Your task to perform on an android device: change the upload size in google photos Image 0: 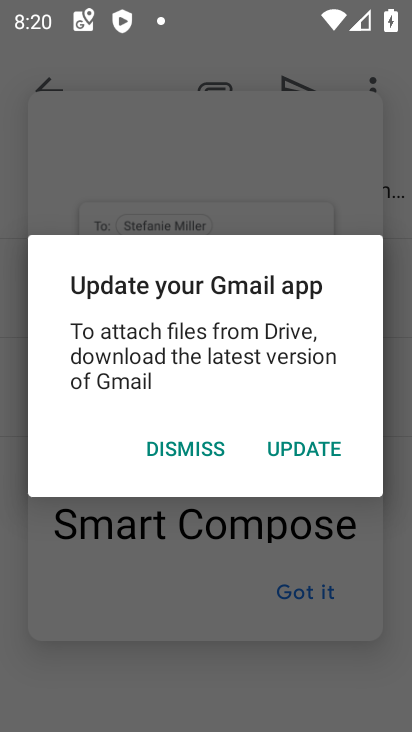
Step 0: press home button
Your task to perform on an android device: change the upload size in google photos Image 1: 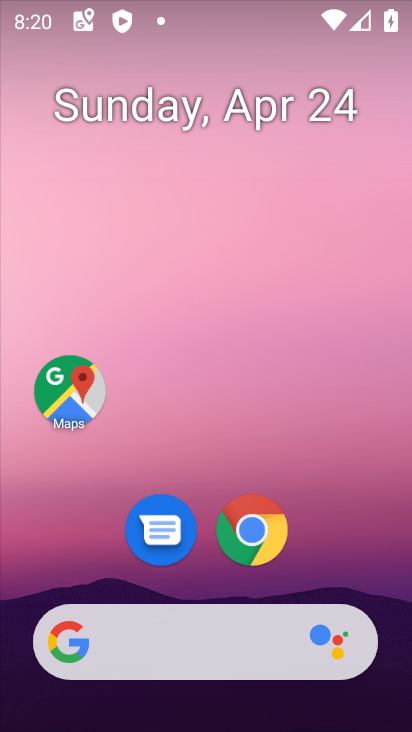
Step 1: drag from (211, 574) to (243, 32)
Your task to perform on an android device: change the upload size in google photos Image 2: 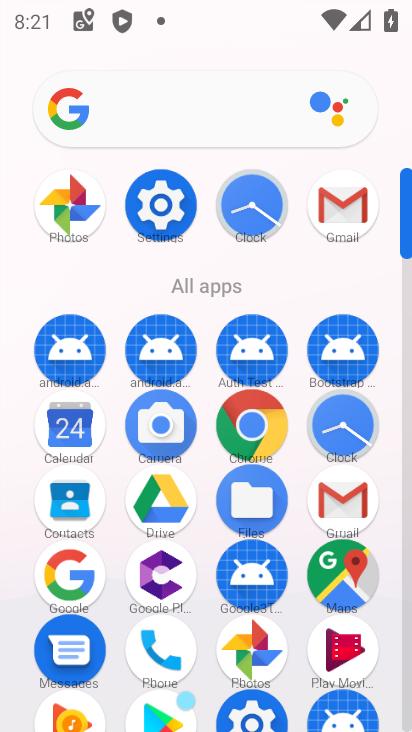
Step 2: click (88, 220)
Your task to perform on an android device: change the upload size in google photos Image 3: 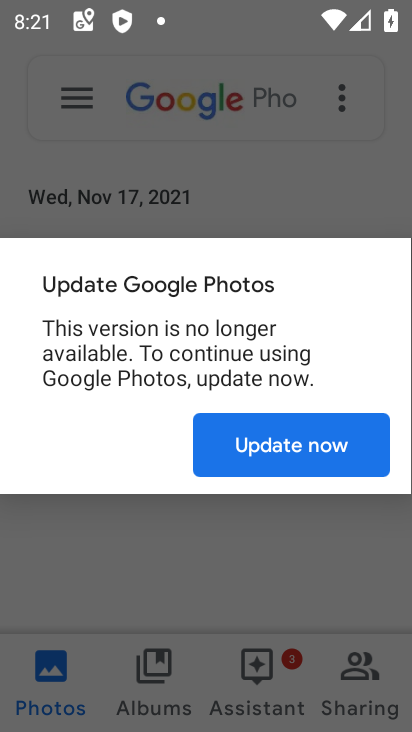
Step 3: click (316, 455)
Your task to perform on an android device: change the upload size in google photos Image 4: 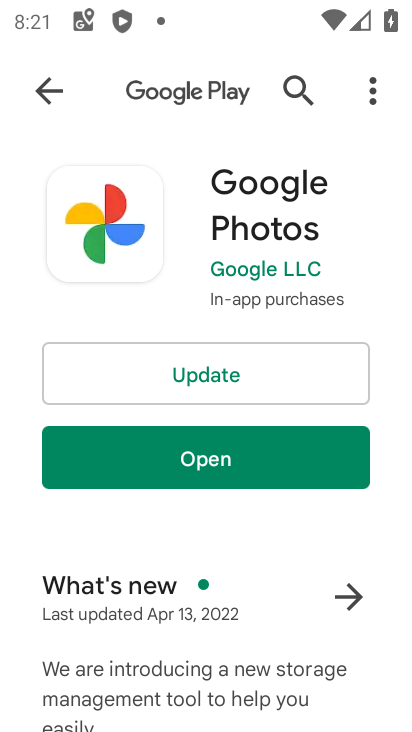
Step 4: click (245, 460)
Your task to perform on an android device: change the upload size in google photos Image 5: 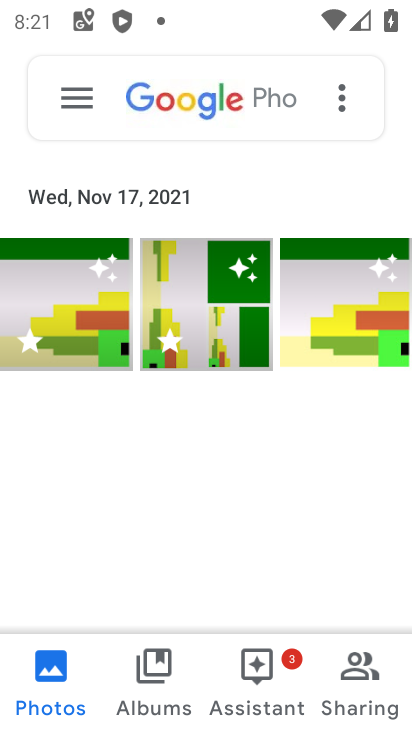
Step 5: click (67, 104)
Your task to perform on an android device: change the upload size in google photos Image 6: 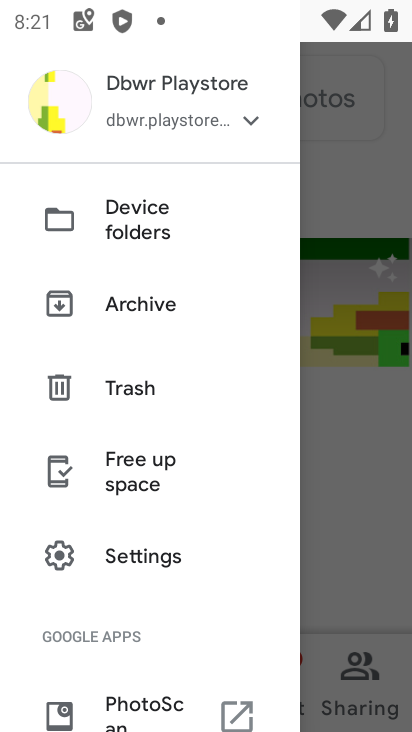
Step 6: click (153, 552)
Your task to perform on an android device: change the upload size in google photos Image 7: 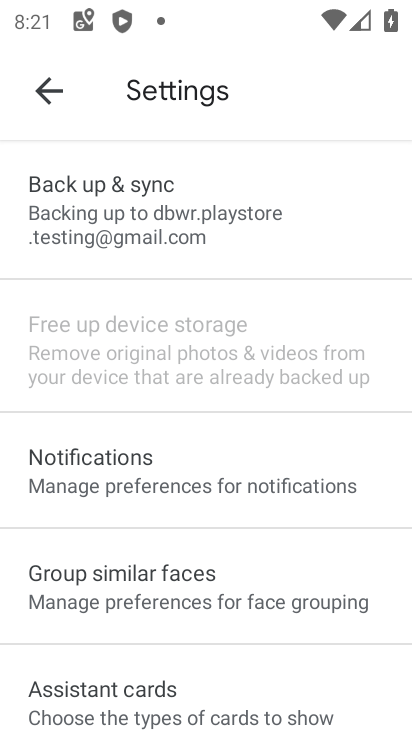
Step 7: click (146, 209)
Your task to perform on an android device: change the upload size in google photos Image 8: 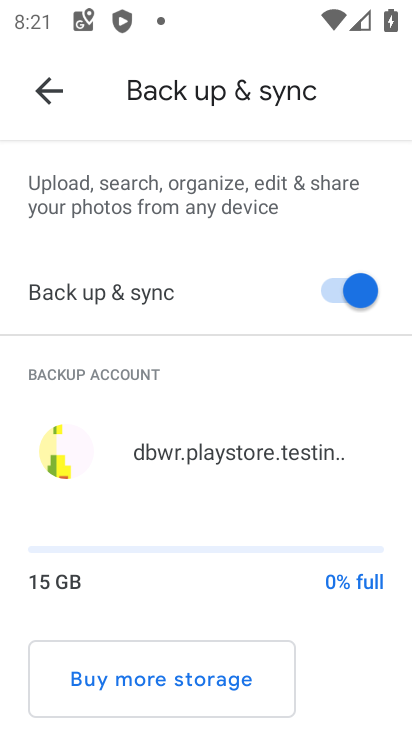
Step 8: drag from (156, 565) to (201, 214)
Your task to perform on an android device: change the upload size in google photos Image 9: 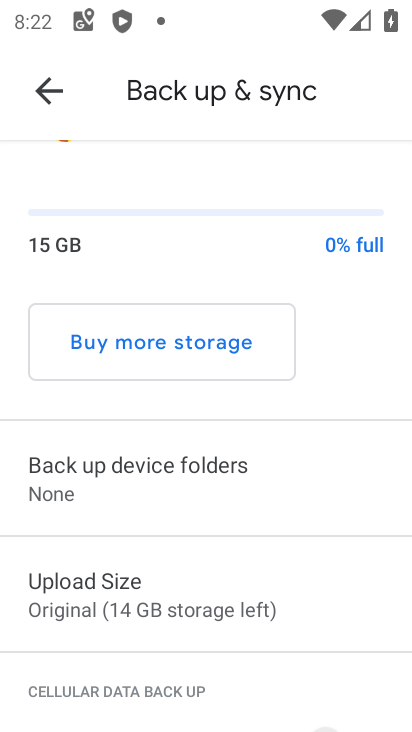
Step 9: click (112, 585)
Your task to perform on an android device: change the upload size in google photos Image 10: 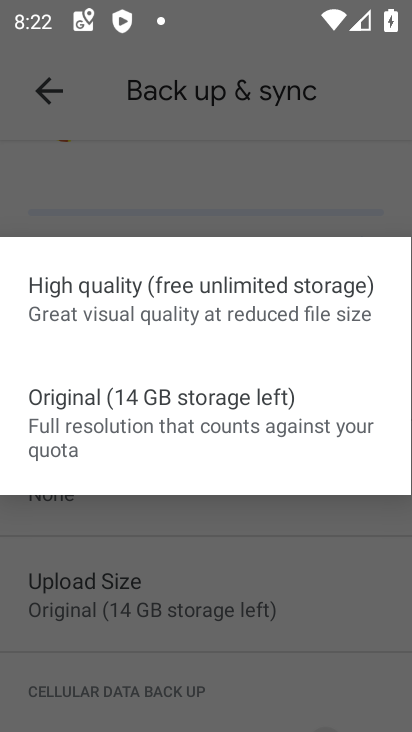
Step 10: click (235, 307)
Your task to perform on an android device: change the upload size in google photos Image 11: 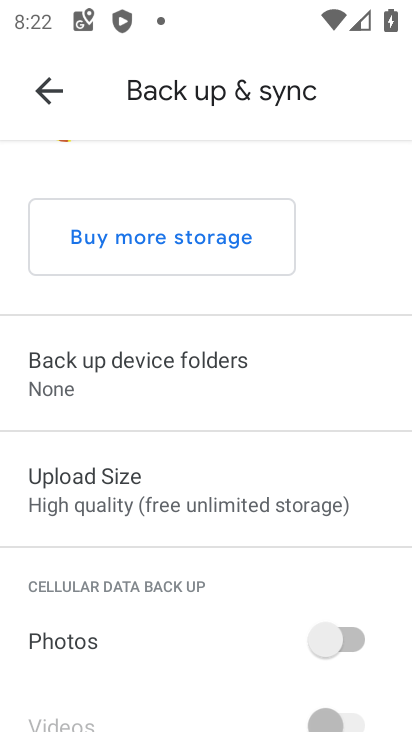
Step 11: task complete